Your task to perform on an android device: Search for acer predator on ebay.com, select the first entry, and add it to the cart. Image 0: 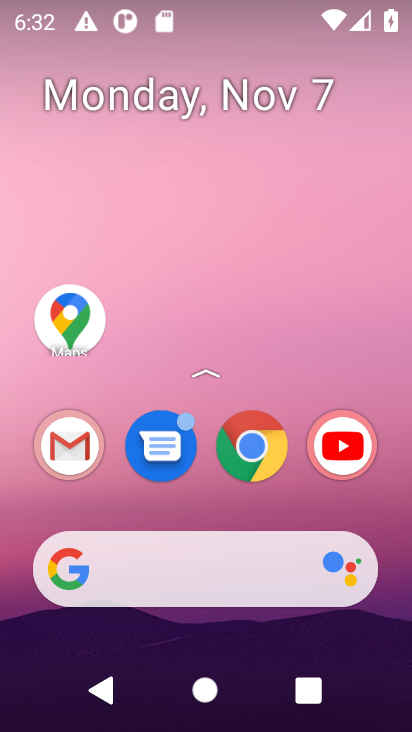
Step 0: click (241, 453)
Your task to perform on an android device: Search for acer predator on ebay.com, select the first entry, and add it to the cart. Image 1: 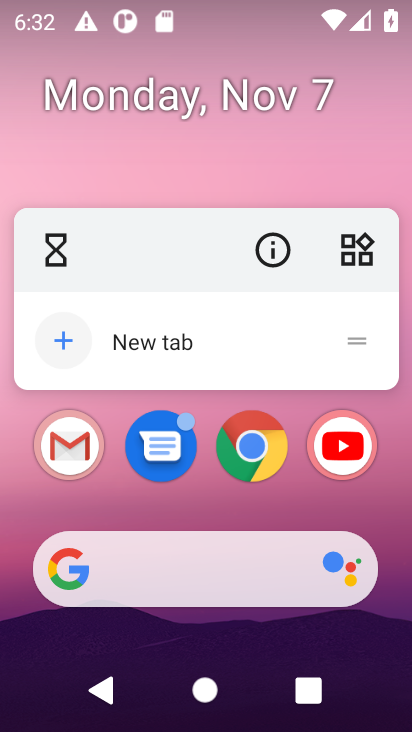
Step 1: click (255, 460)
Your task to perform on an android device: Search for acer predator on ebay.com, select the first entry, and add it to the cart. Image 2: 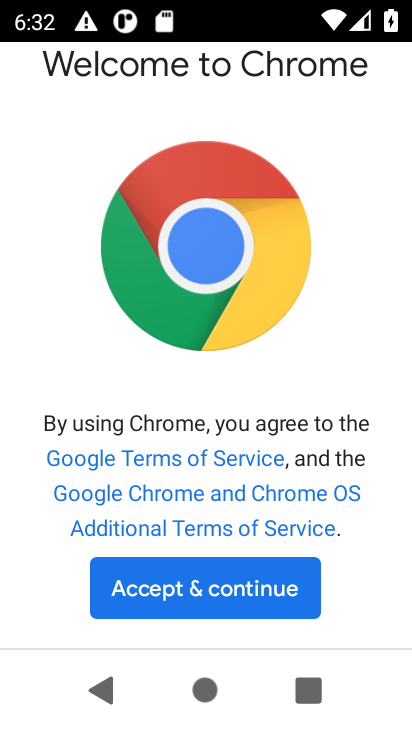
Step 2: click (170, 583)
Your task to perform on an android device: Search for acer predator on ebay.com, select the first entry, and add it to the cart. Image 3: 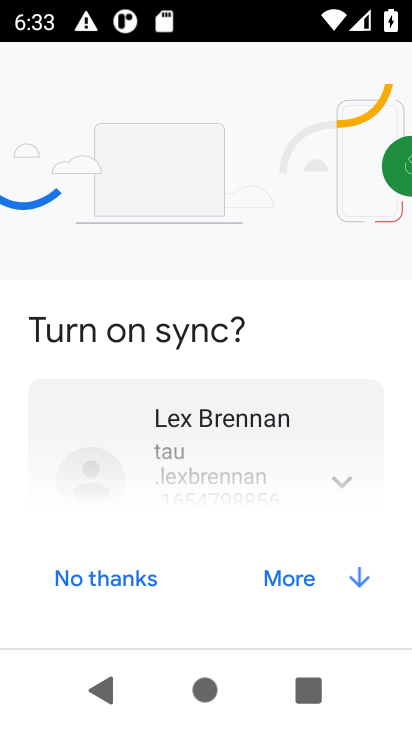
Step 3: click (109, 574)
Your task to perform on an android device: Search for acer predator on ebay.com, select the first entry, and add it to the cart. Image 4: 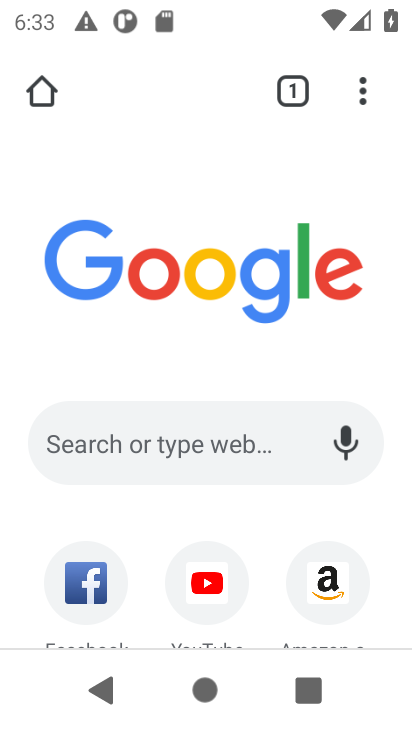
Step 4: click (172, 454)
Your task to perform on an android device: Search for acer predator on ebay.com, select the first entry, and add it to the cart. Image 5: 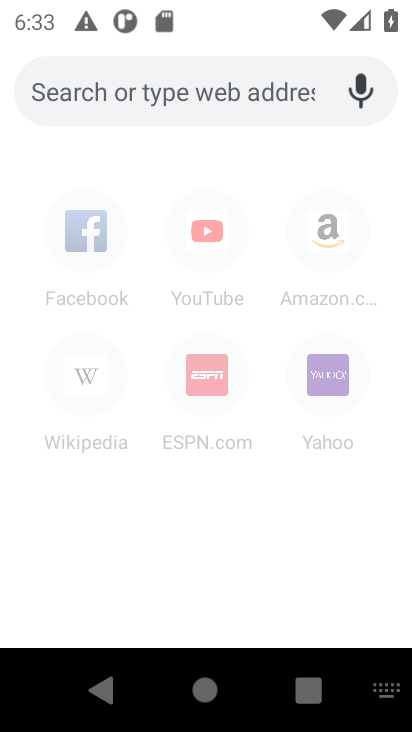
Step 5: type "ebay.com"
Your task to perform on an android device: Search for acer predator on ebay.com, select the first entry, and add it to the cart. Image 6: 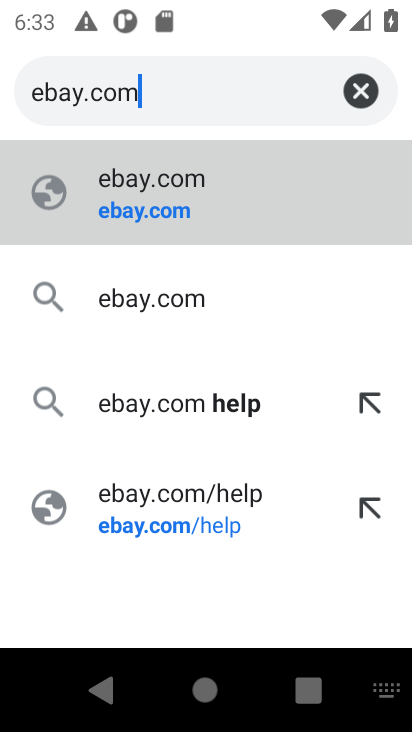
Step 6: press enter
Your task to perform on an android device: Search for acer predator on ebay.com, select the first entry, and add it to the cart. Image 7: 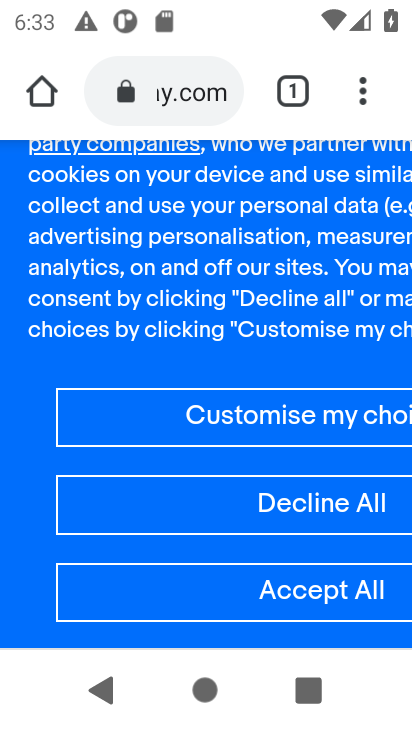
Step 7: click (201, 585)
Your task to perform on an android device: Search for acer predator on ebay.com, select the first entry, and add it to the cart. Image 8: 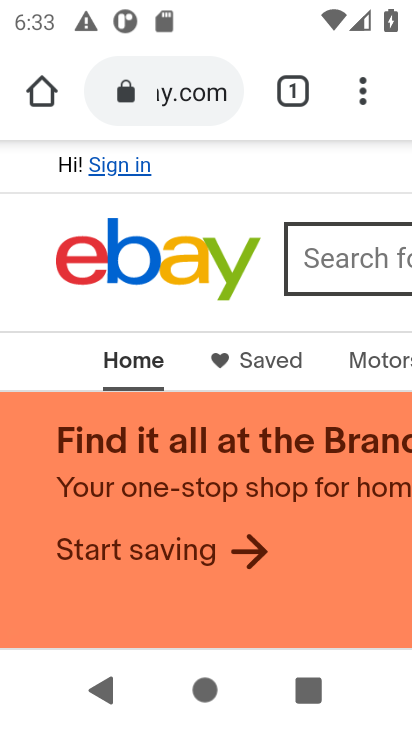
Step 8: click (351, 276)
Your task to perform on an android device: Search for acer predator on ebay.com, select the first entry, and add it to the cart. Image 9: 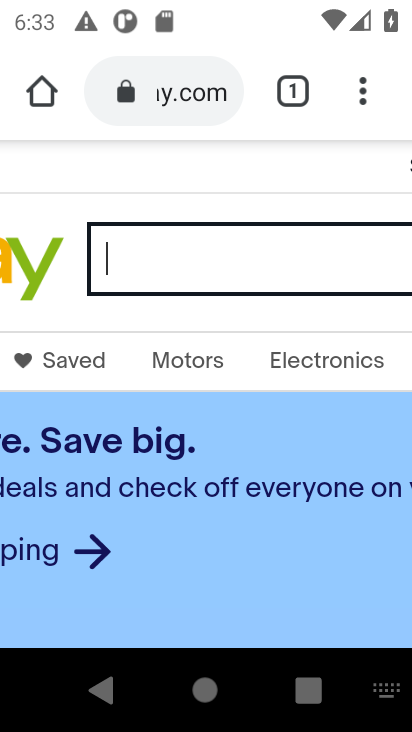
Step 9: type "acer predator"
Your task to perform on an android device: Search for acer predator on ebay.com, select the first entry, and add it to the cart. Image 10: 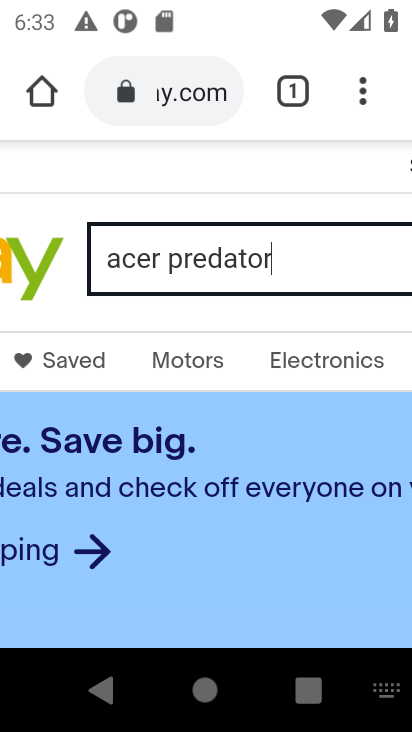
Step 10: press enter
Your task to perform on an android device: Search for acer predator on ebay.com, select the first entry, and add it to the cart. Image 11: 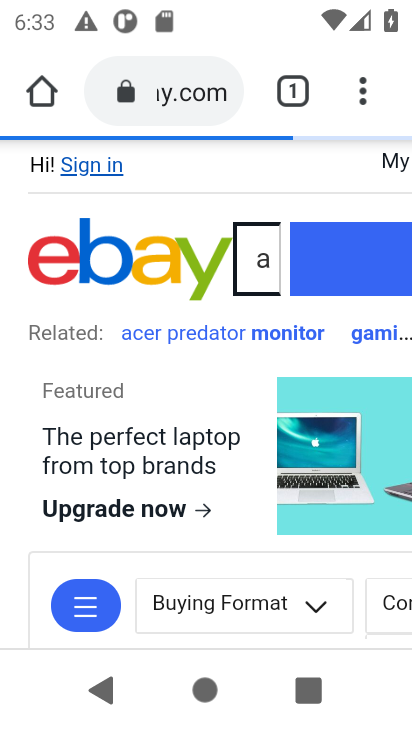
Step 11: drag from (164, 564) to (392, 278)
Your task to perform on an android device: Search for acer predator on ebay.com, select the first entry, and add it to the cart. Image 12: 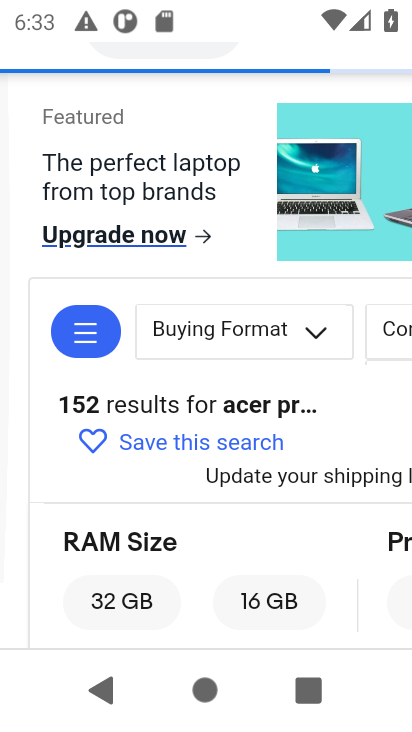
Step 12: drag from (318, 532) to (345, 306)
Your task to perform on an android device: Search for acer predator on ebay.com, select the first entry, and add it to the cart. Image 13: 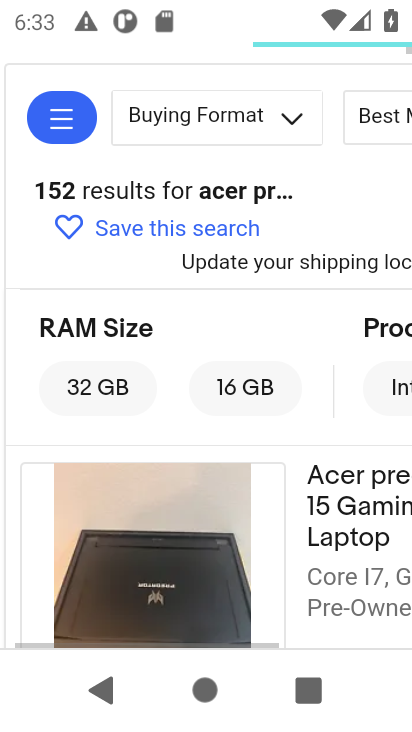
Step 13: drag from (252, 497) to (309, 346)
Your task to perform on an android device: Search for acer predator on ebay.com, select the first entry, and add it to the cart. Image 14: 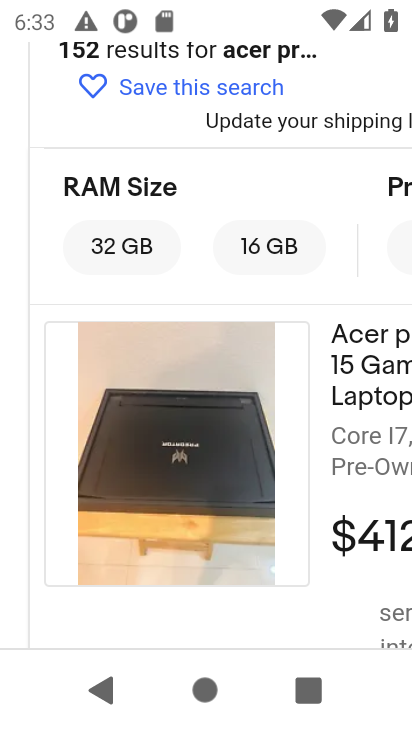
Step 14: drag from (278, 625) to (411, 601)
Your task to perform on an android device: Search for acer predator on ebay.com, select the first entry, and add it to the cart. Image 15: 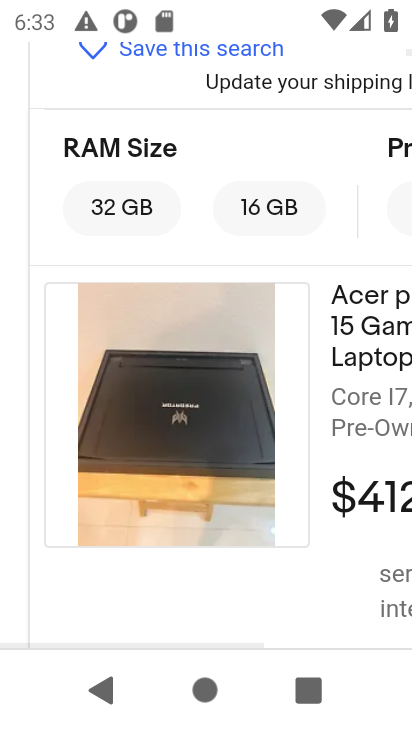
Step 15: drag from (343, 439) to (408, 487)
Your task to perform on an android device: Search for acer predator on ebay.com, select the first entry, and add it to the cart. Image 16: 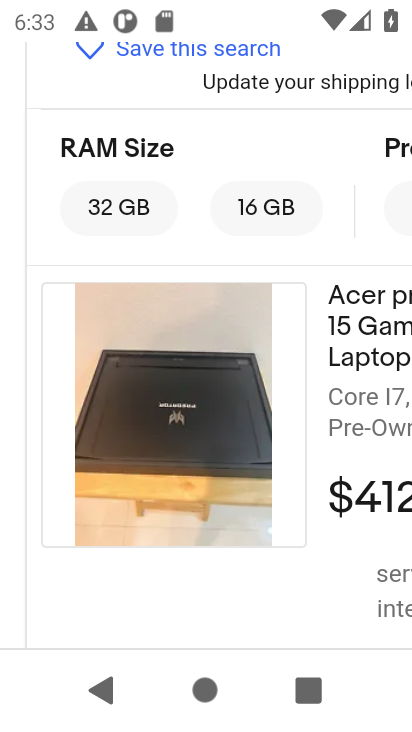
Step 16: click (358, 315)
Your task to perform on an android device: Search for acer predator on ebay.com, select the first entry, and add it to the cart. Image 17: 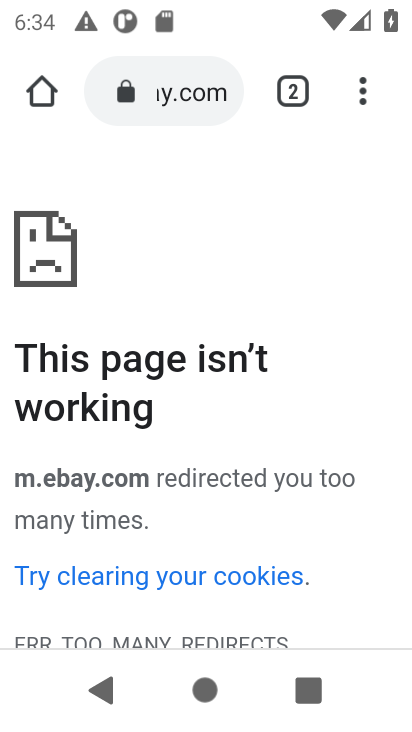
Step 17: task complete